Your task to perform on an android device: Go to Reddit.com Image 0: 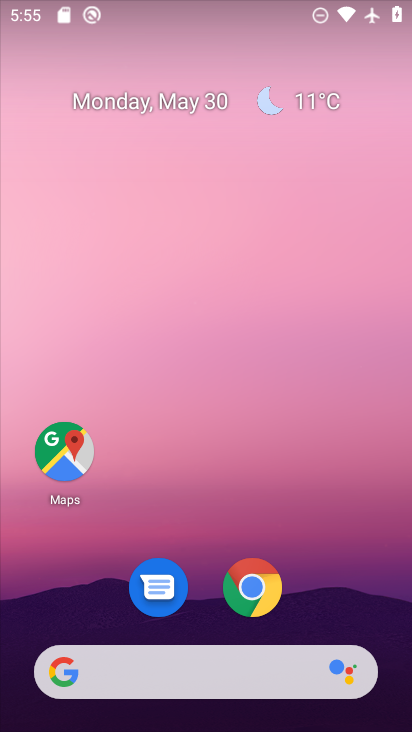
Step 0: drag from (311, 492) to (182, 10)
Your task to perform on an android device: Go to Reddit.com Image 1: 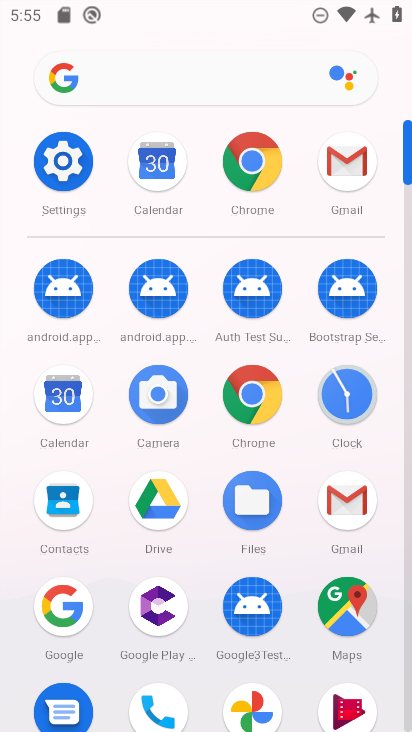
Step 1: drag from (29, 553) to (14, 210)
Your task to perform on an android device: Go to Reddit.com Image 2: 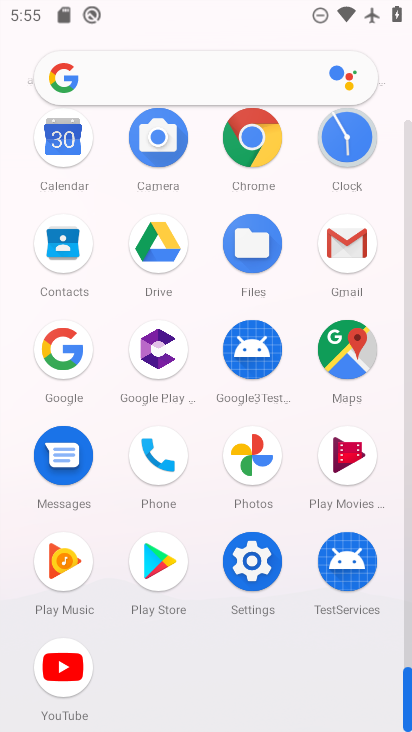
Step 2: click (250, 139)
Your task to perform on an android device: Go to Reddit.com Image 3: 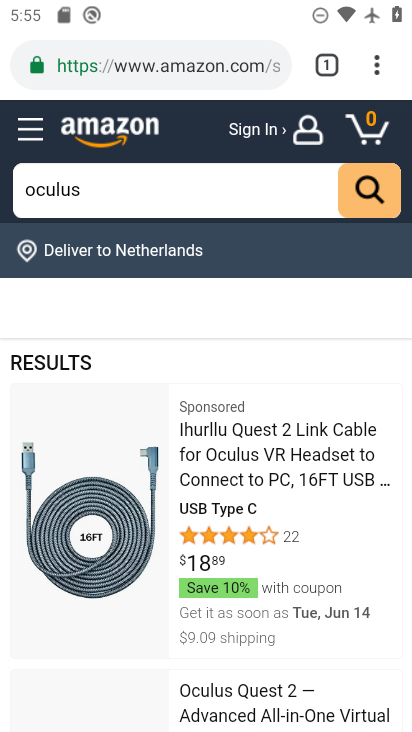
Step 3: click (204, 55)
Your task to perform on an android device: Go to Reddit.com Image 4: 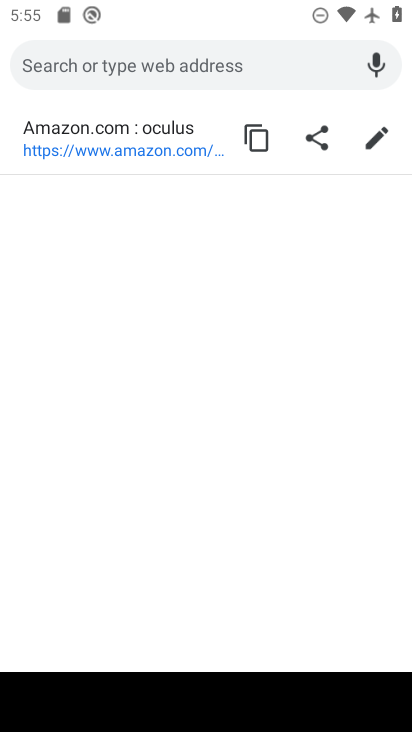
Step 4: type "Reddit.com"
Your task to perform on an android device: Go to Reddit.com Image 5: 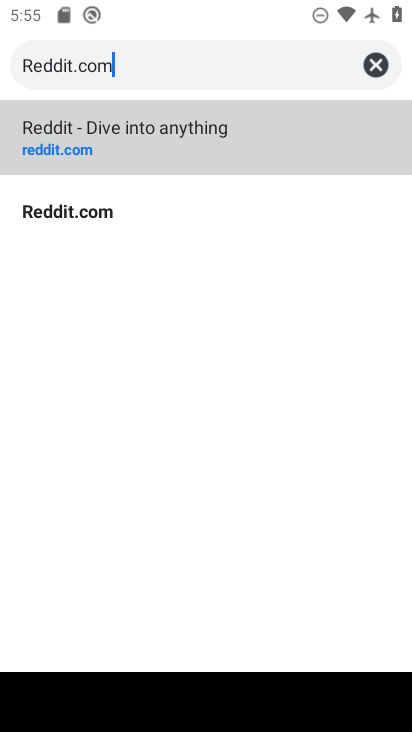
Step 5: click (160, 116)
Your task to perform on an android device: Go to Reddit.com Image 6: 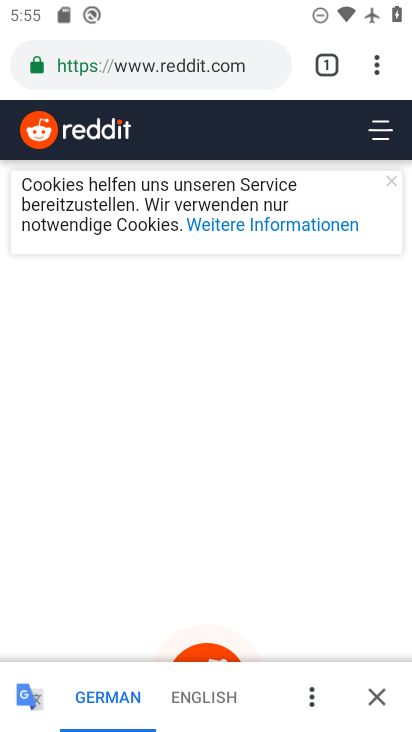
Step 6: task complete